Your task to perform on an android device: allow cookies in the chrome app Image 0: 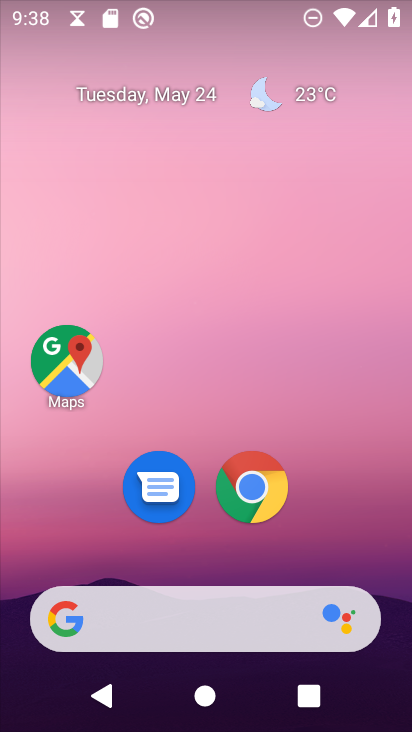
Step 0: press home button
Your task to perform on an android device: allow cookies in the chrome app Image 1: 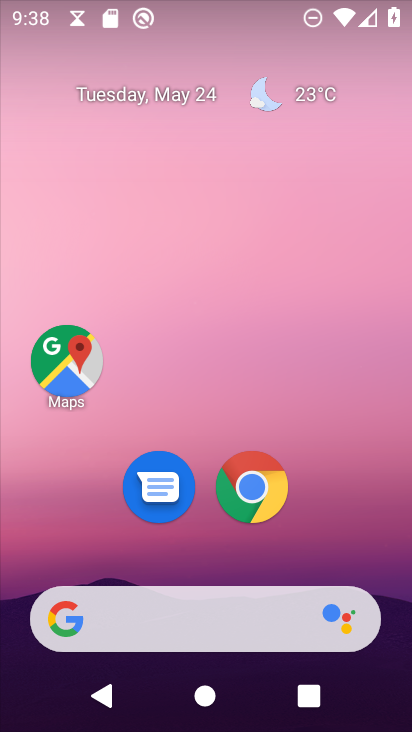
Step 1: click (258, 474)
Your task to perform on an android device: allow cookies in the chrome app Image 2: 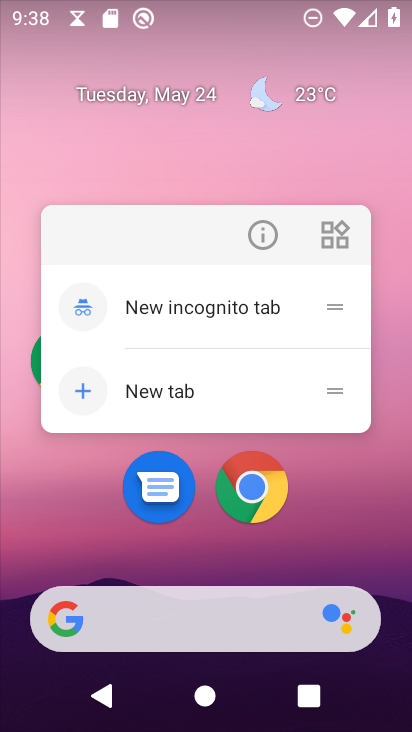
Step 2: click (258, 482)
Your task to perform on an android device: allow cookies in the chrome app Image 3: 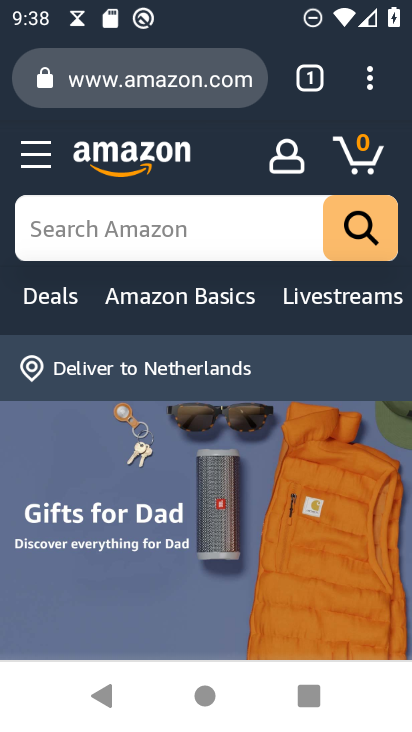
Step 3: click (366, 75)
Your task to perform on an android device: allow cookies in the chrome app Image 4: 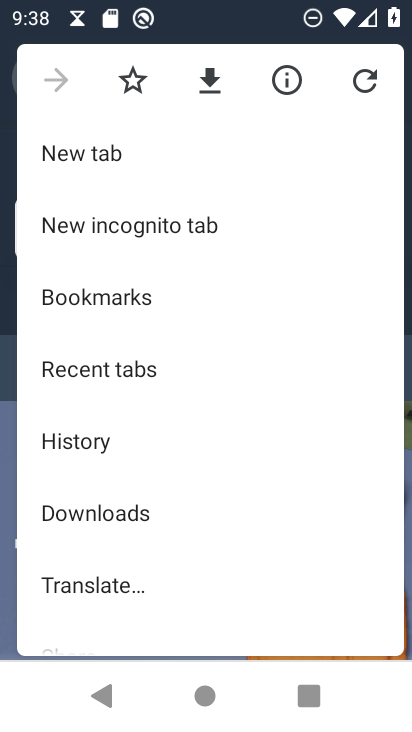
Step 4: drag from (6, 630) to (219, 201)
Your task to perform on an android device: allow cookies in the chrome app Image 5: 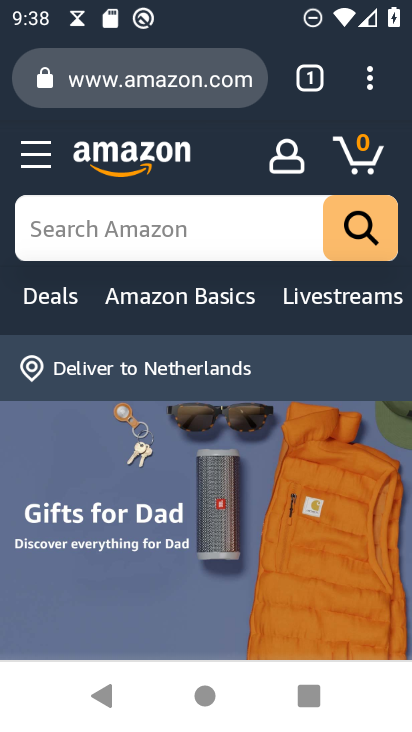
Step 5: click (370, 74)
Your task to perform on an android device: allow cookies in the chrome app Image 6: 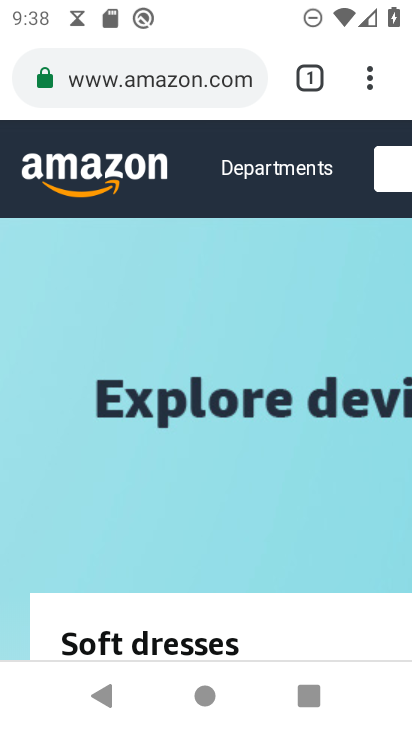
Step 6: click (367, 74)
Your task to perform on an android device: allow cookies in the chrome app Image 7: 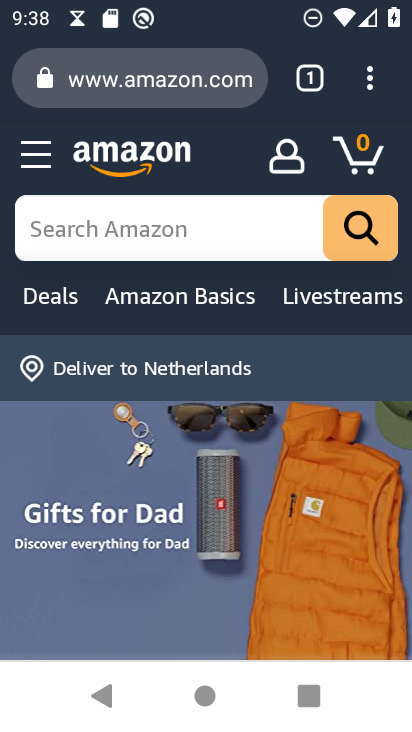
Step 7: click (364, 75)
Your task to perform on an android device: allow cookies in the chrome app Image 8: 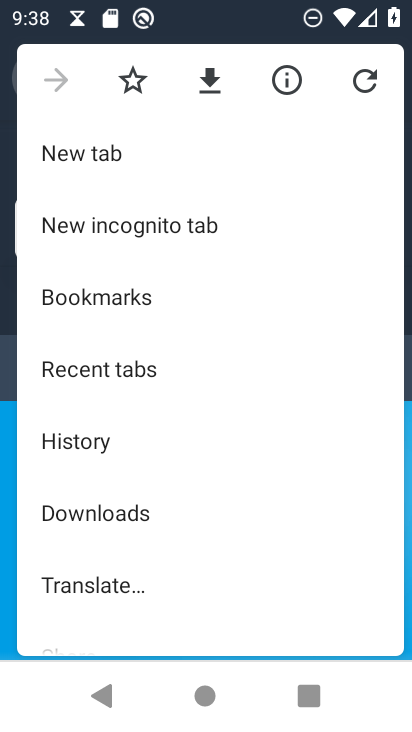
Step 8: drag from (23, 616) to (228, 189)
Your task to perform on an android device: allow cookies in the chrome app Image 9: 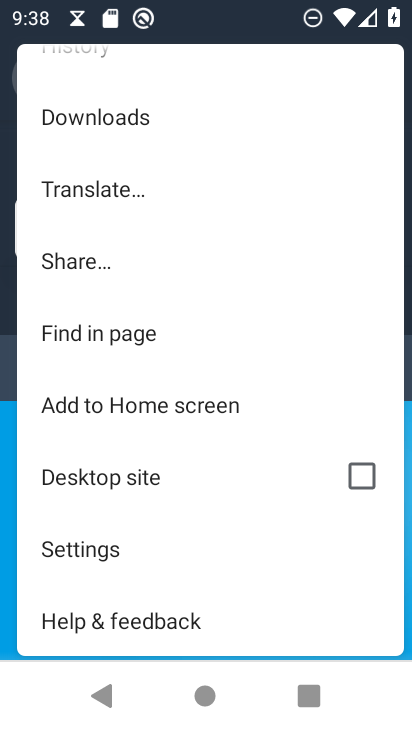
Step 9: click (104, 545)
Your task to perform on an android device: allow cookies in the chrome app Image 10: 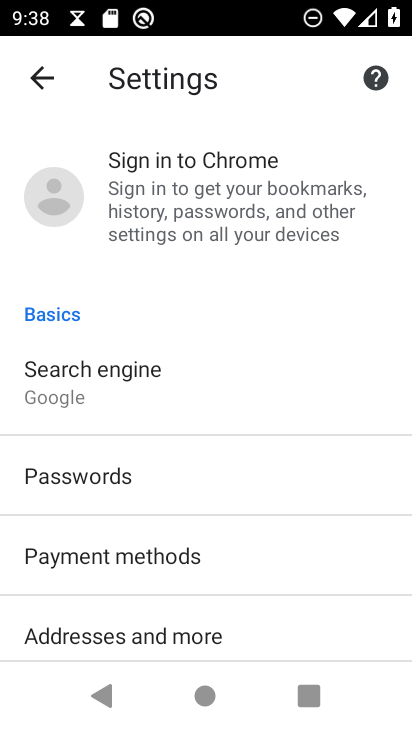
Step 10: drag from (9, 583) to (218, 151)
Your task to perform on an android device: allow cookies in the chrome app Image 11: 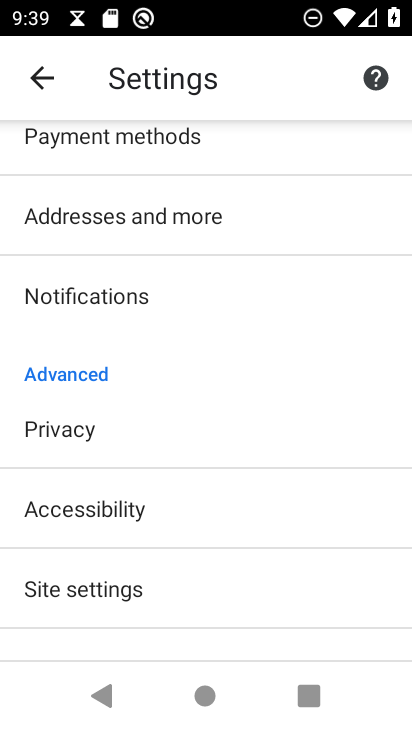
Step 11: click (80, 588)
Your task to perform on an android device: allow cookies in the chrome app Image 12: 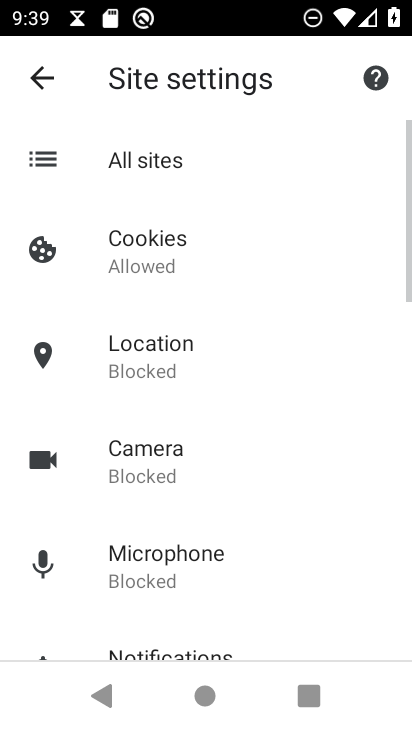
Step 12: click (132, 243)
Your task to perform on an android device: allow cookies in the chrome app Image 13: 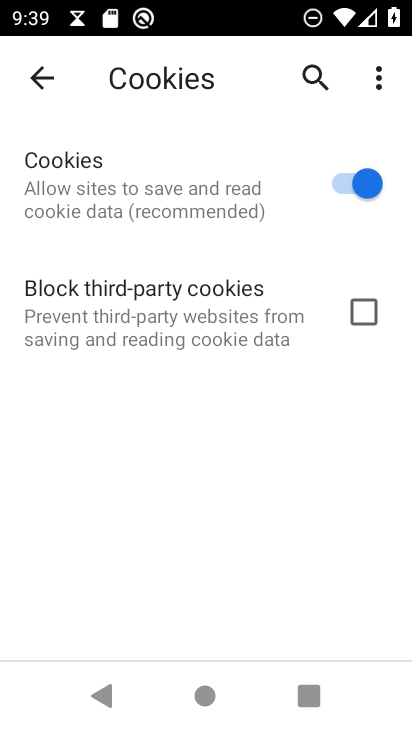
Step 13: task complete